Your task to perform on an android device: turn on airplane mode Image 0: 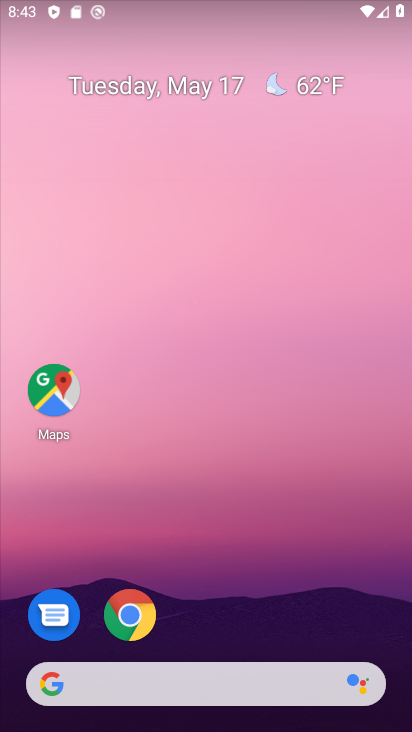
Step 0: drag from (391, 20) to (359, 546)
Your task to perform on an android device: turn on airplane mode Image 1: 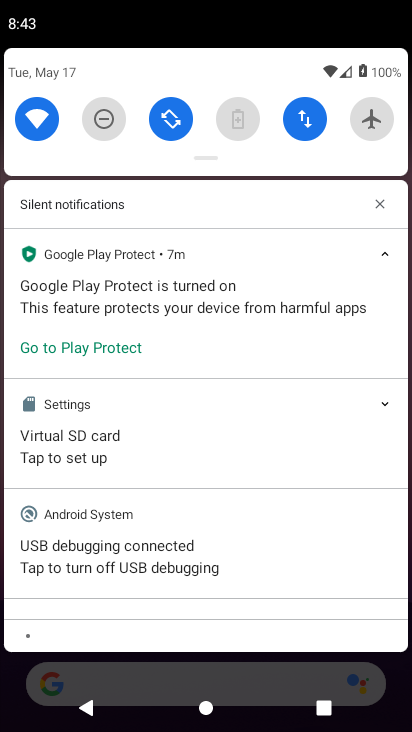
Step 1: click (370, 122)
Your task to perform on an android device: turn on airplane mode Image 2: 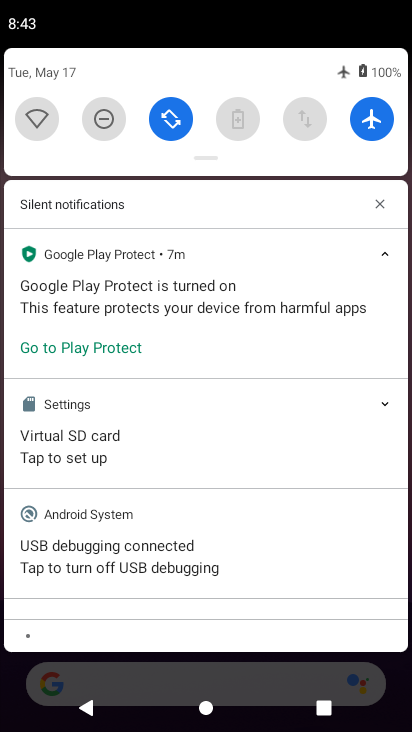
Step 2: task complete